Your task to perform on an android device: Open Android settings Image 0: 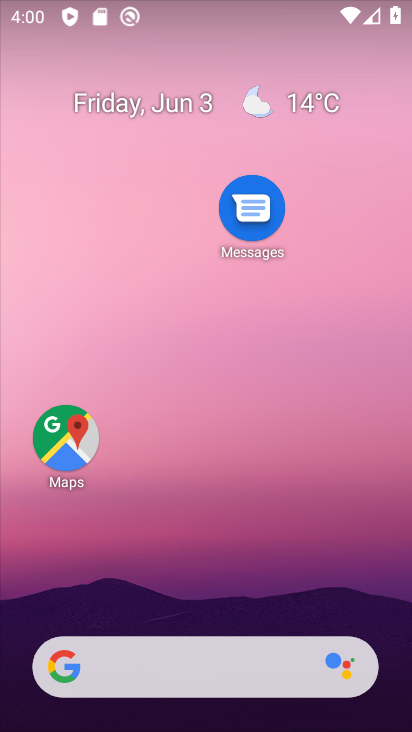
Step 0: drag from (235, 587) to (235, 291)
Your task to perform on an android device: Open Android settings Image 1: 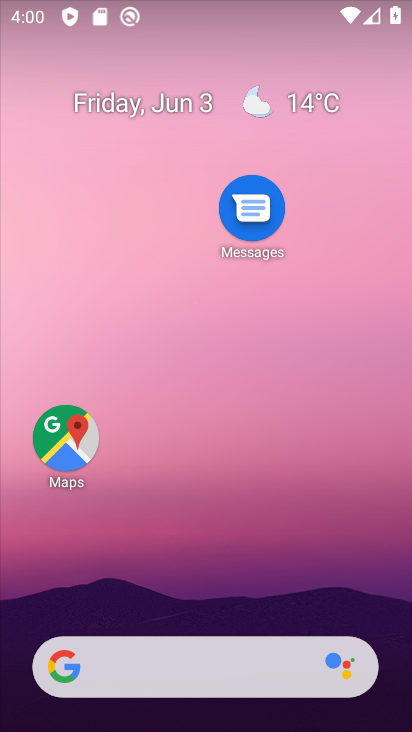
Step 1: drag from (225, 592) to (259, 141)
Your task to perform on an android device: Open Android settings Image 2: 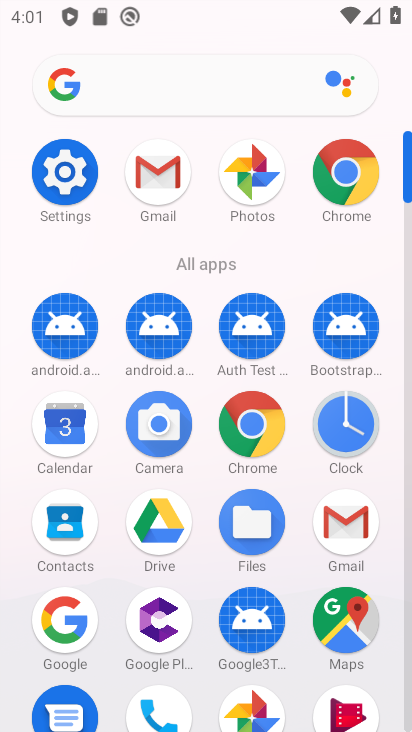
Step 2: click (71, 173)
Your task to perform on an android device: Open Android settings Image 3: 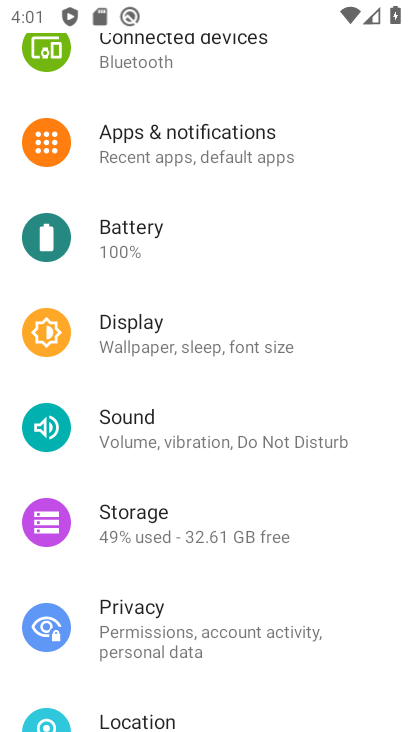
Step 3: drag from (181, 588) to (196, 406)
Your task to perform on an android device: Open Android settings Image 4: 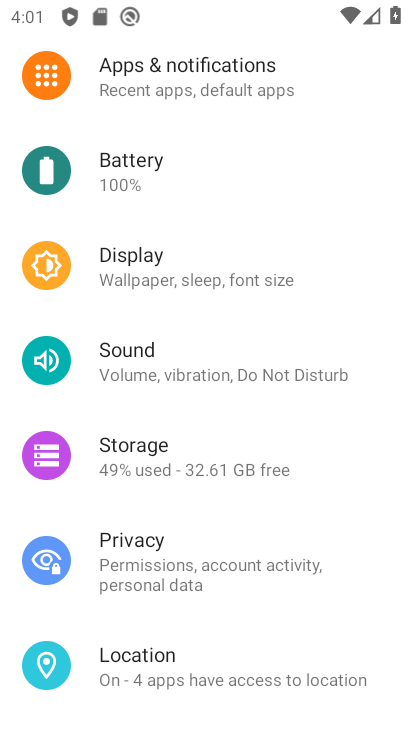
Step 4: drag from (212, 578) to (249, 375)
Your task to perform on an android device: Open Android settings Image 5: 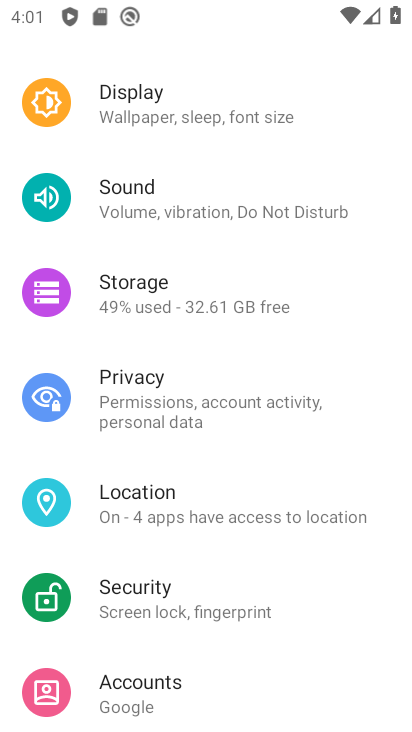
Step 5: drag from (195, 618) to (227, 430)
Your task to perform on an android device: Open Android settings Image 6: 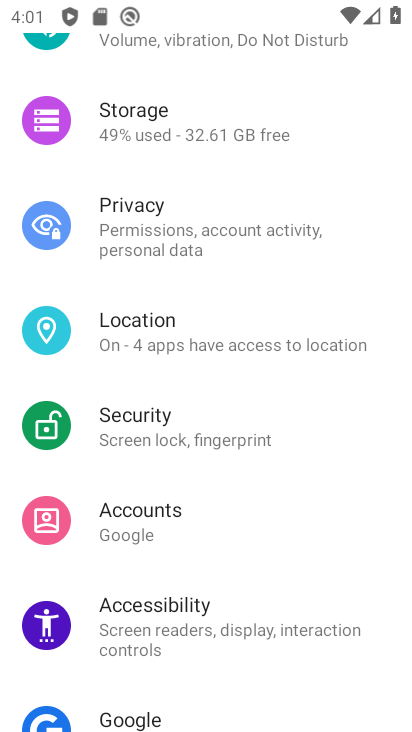
Step 6: drag from (235, 623) to (236, 481)
Your task to perform on an android device: Open Android settings Image 7: 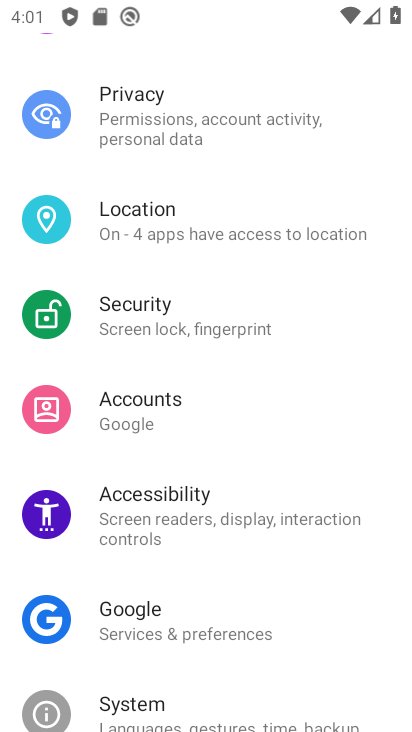
Step 7: drag from (208, 623) to (218, 459)
Your task to perform on an android device: Open Android settings Image 8: 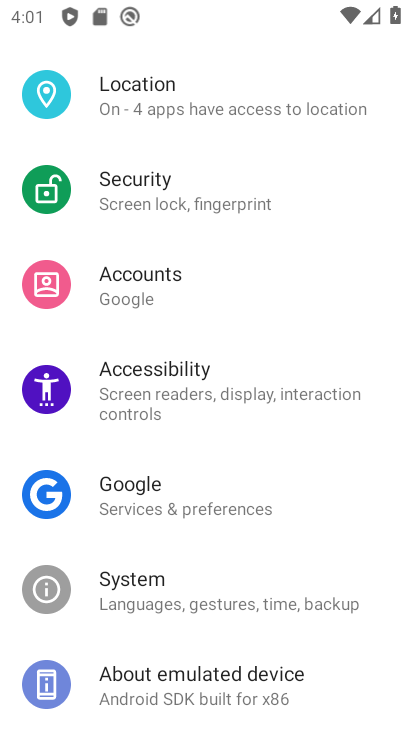
Step 8: click (164, 705)
Your task to perform on an android device: Open Android settings Image 9: 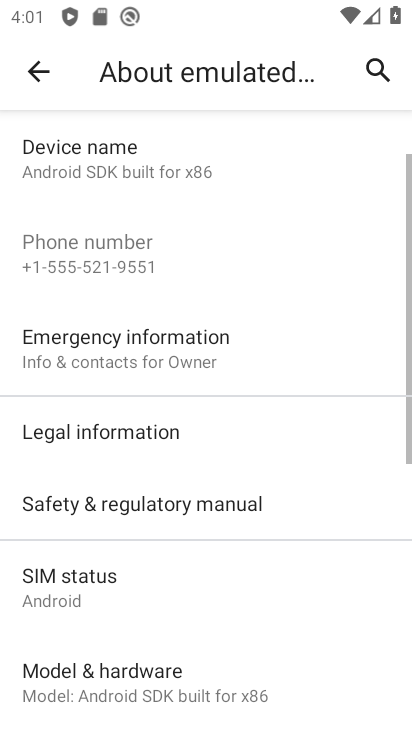
Step 9: drag from (133, 568) to (195, 378)
Your task to perform on an android device: Open Android settings Image 10: 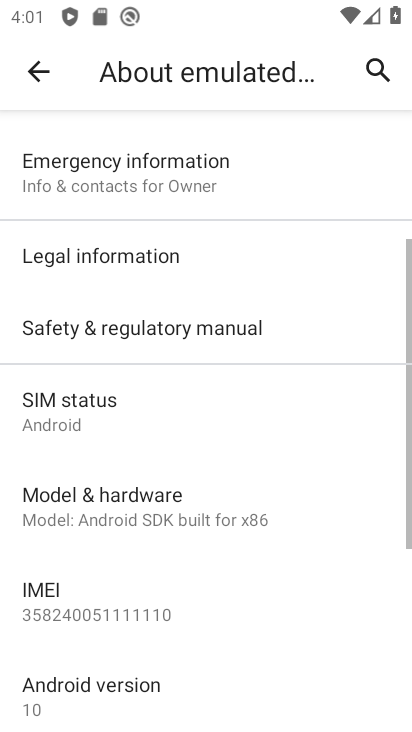
Step 10: drag from (99, 487) to (121, 393)
Your task to perform on an android device: Open Android settings Image 11: 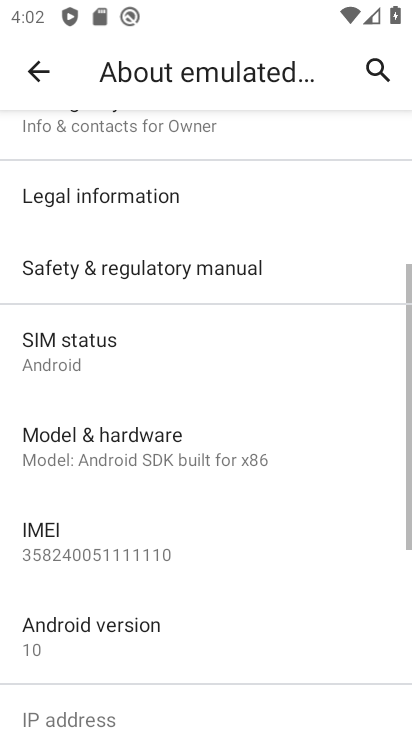
Step 11: click (83, 654)
Your task to perform on an android device: Open Android settings Image 12: 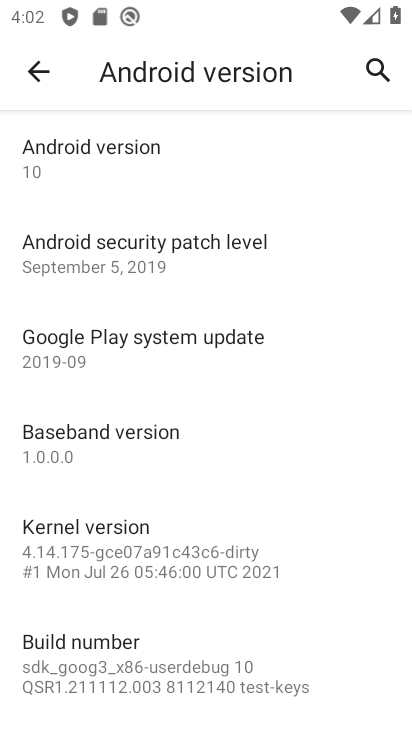
Step 12: task complete